Your task to perform on an android device: see tabs open on other devices in the chrome app Image 0: 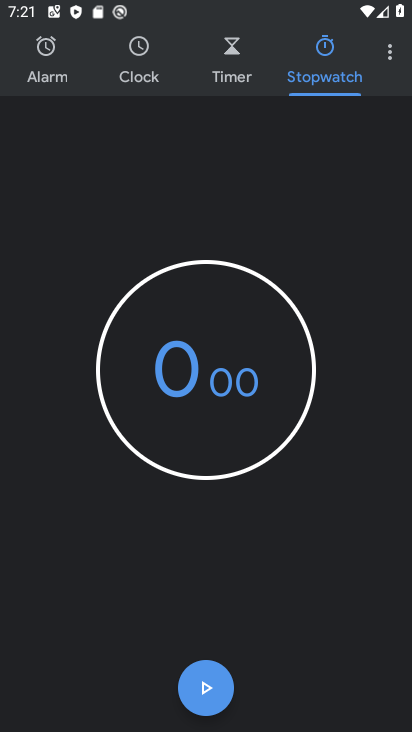
Step 0: press home button
Your task to perform on an android device: see tabs open on other devices in the chrome app Image 1: 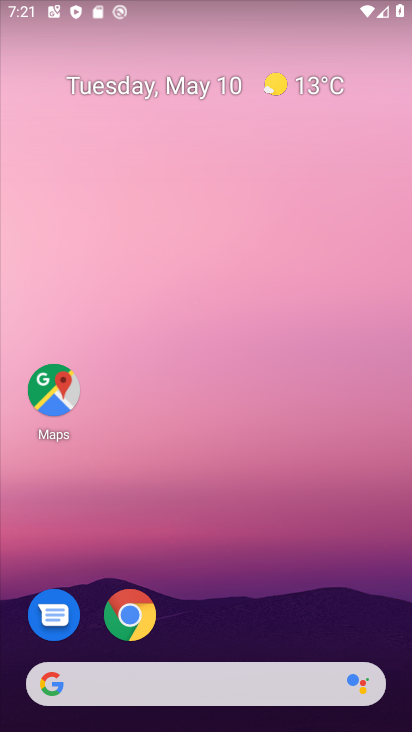
Step 1: click (134, 605)
Your task to perform on an android device: see tabs open on other devices in the chrome app Image 2: 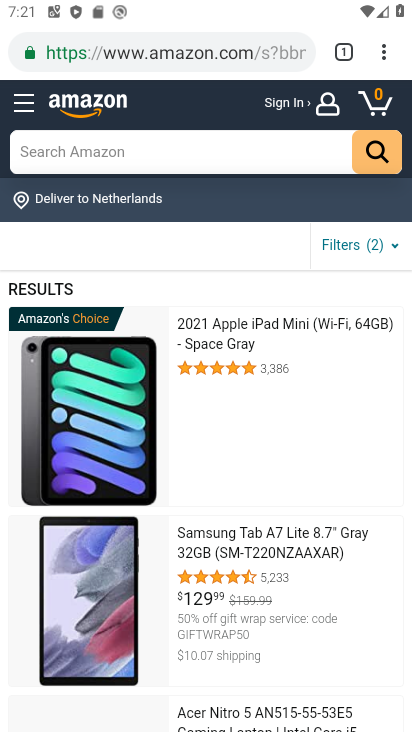
Step 2: task complete